Your task to perform on an android device: toggle location history Image 0: 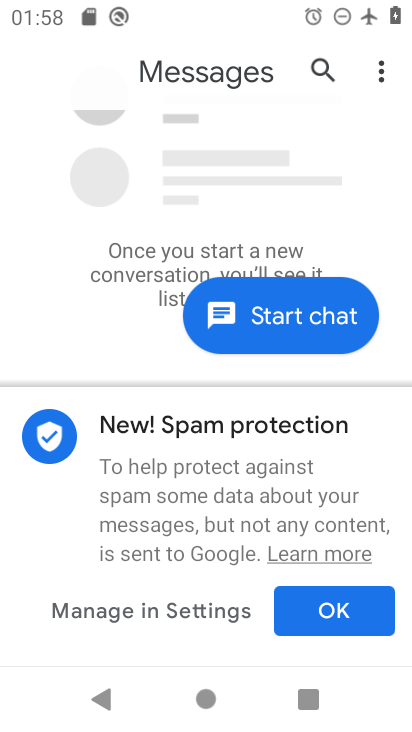
Step 0: press home button
Your task to perform on an android device: toggle location history Image 1: 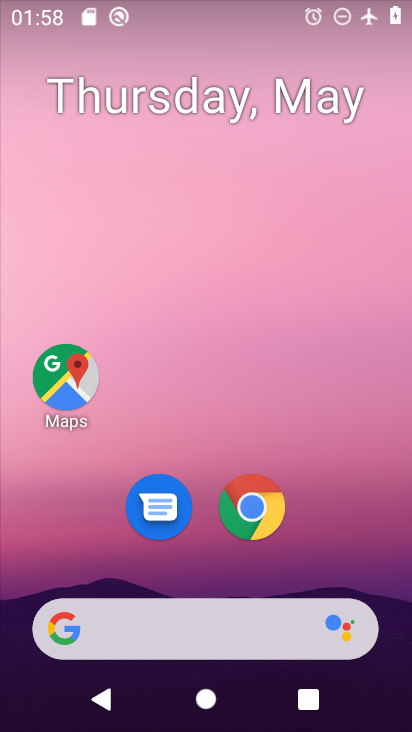
Step 1: drag from (327, 547) to (304, 152)
Your task to perform on an android device: toggle location history Image 2: 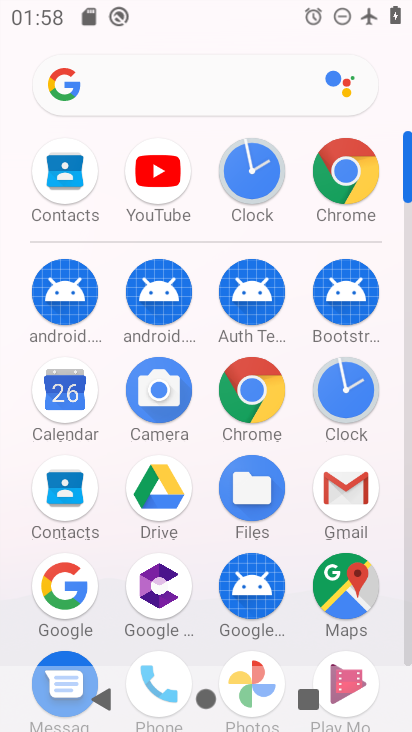
Step 2: click (404, 660)
Your task to perform on an android device: toggle location history Image 3: 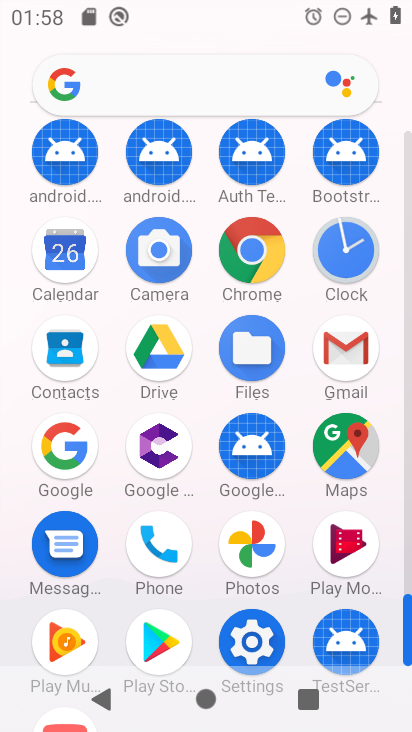
Step 3: click (253, 646)
Your task to perform on an android device: toggle location history Image 4: 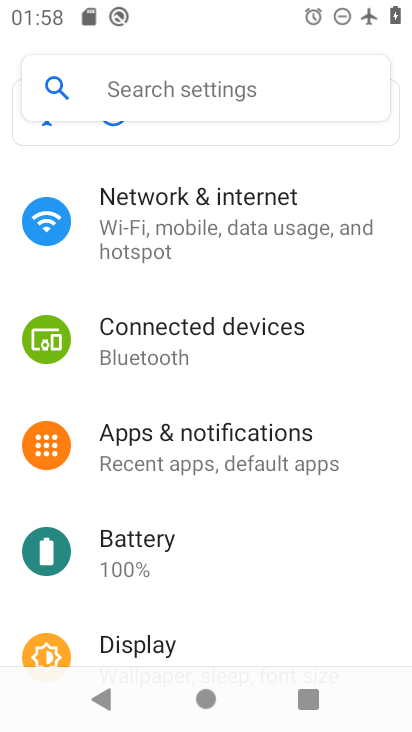
Step 4: drag from (169, 556) to (135, 184)
Your task to perform on an android device: toggle location history Image 5: 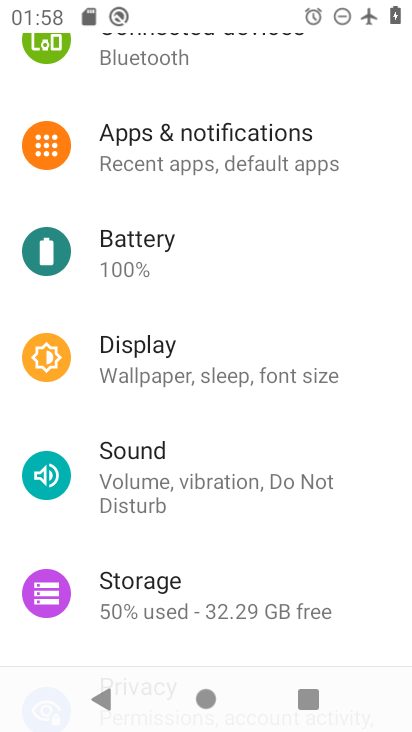
Step 5: drag from (156, 525) to (172, 243)
Your task to perform on an android device: toggle location history Image 6: 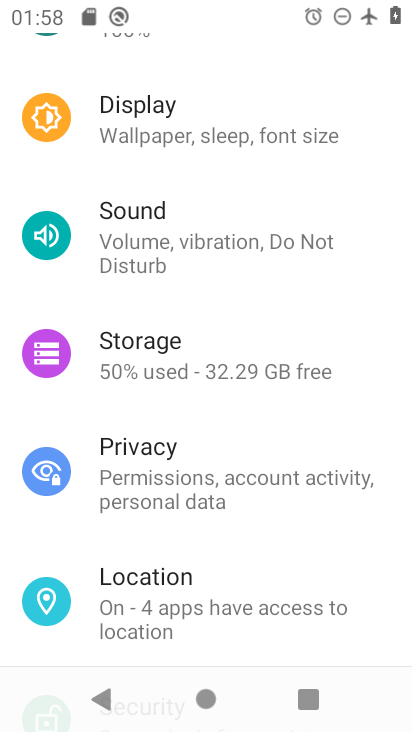
Step 6: click (155, 568)
Your task to perform on an android device: toggle location history Image 7: 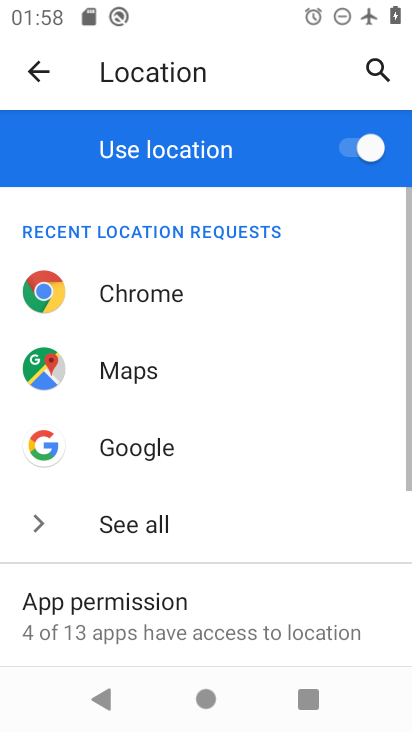
Step 7: drag from (155, 568) to (179, 189)
Your task to perform on an android device: toggle location history Image 8: 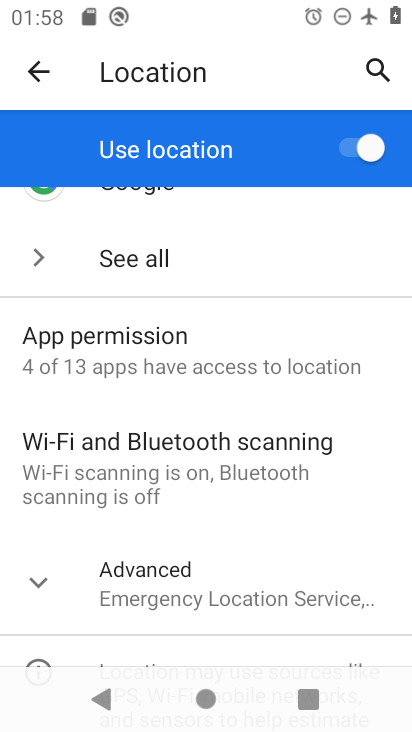
Step 8: click (207, 597)
Your task to perform on an android device: toggle location history Image 9: 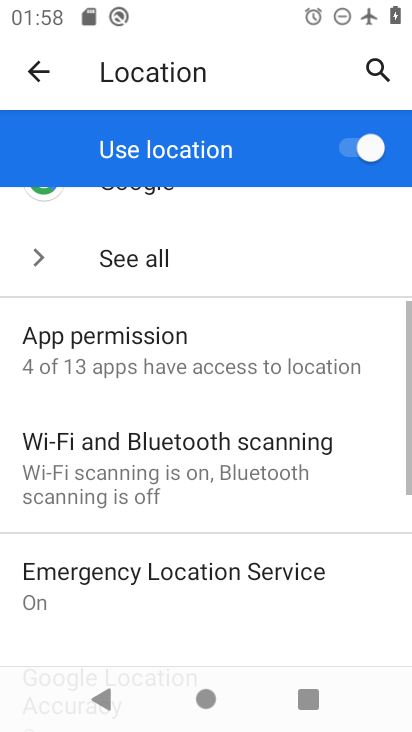
Step 9: drag from (207, 597) to (213, 237)
Your task to perform on an android device: toggle location history Image 10: 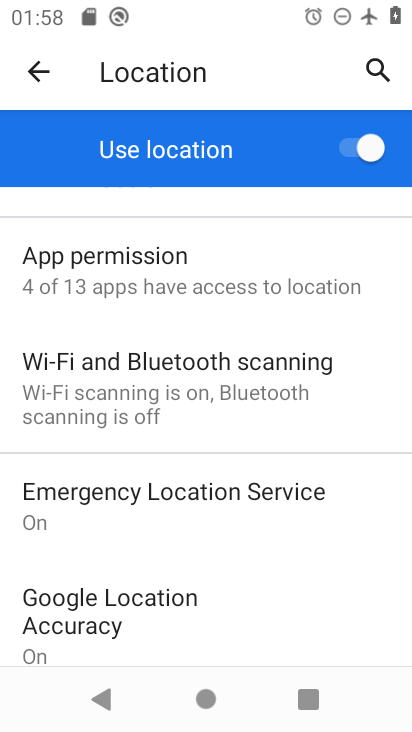
Step 10: drag from (180, 645) to (200, 399)
Your task to perform on an android device: toggle location history Image 11: 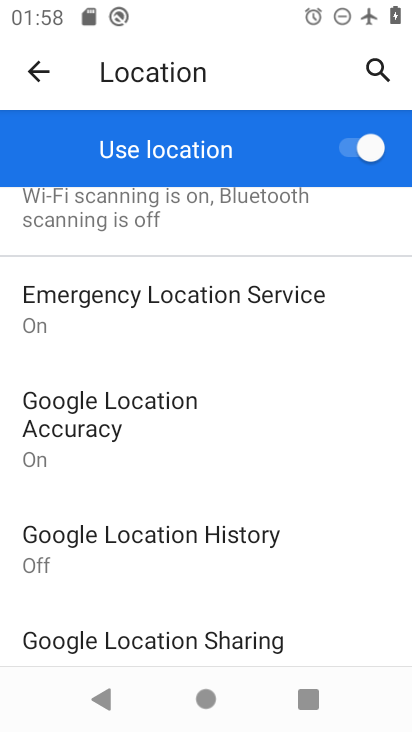
Step 11: click (250, 562)
Your task to perform on an android device: toggle location history Image 12: 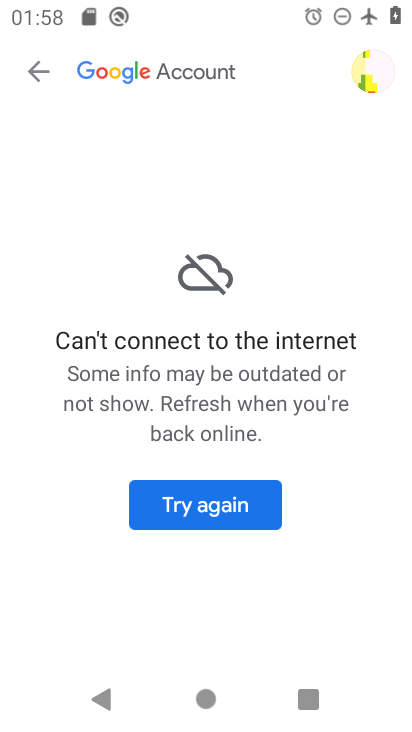
Step 12: task complete